Your task to perform on an android device: Go to CNN.com Image 0: 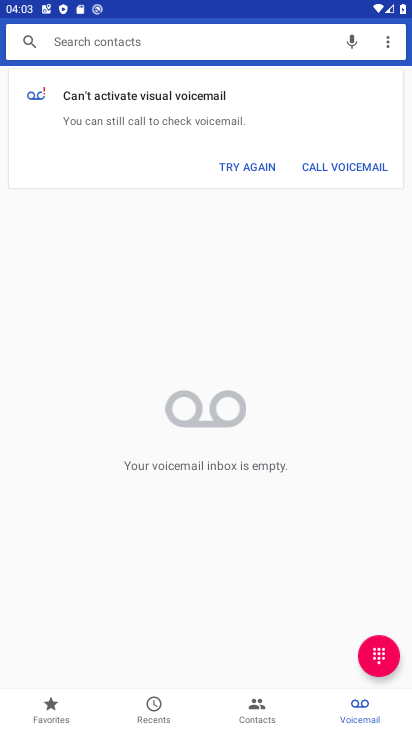
Step 0: press home button
Your task to perform on an android device: Go to CNN.com Image 1: 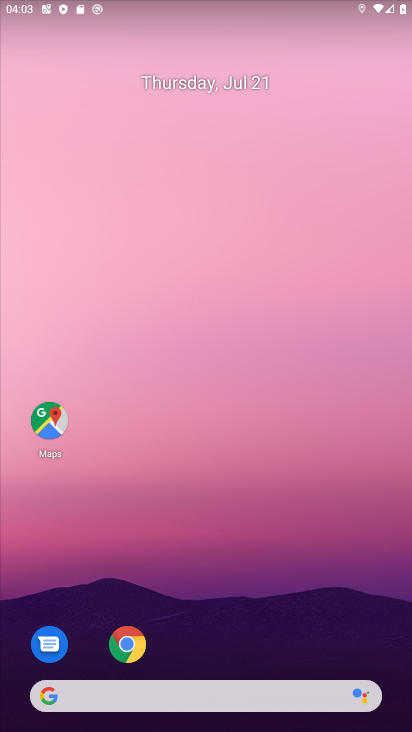
Step 1: click (134, 649)
Your task to perform on an android device: Go to CNN.com Image 2: 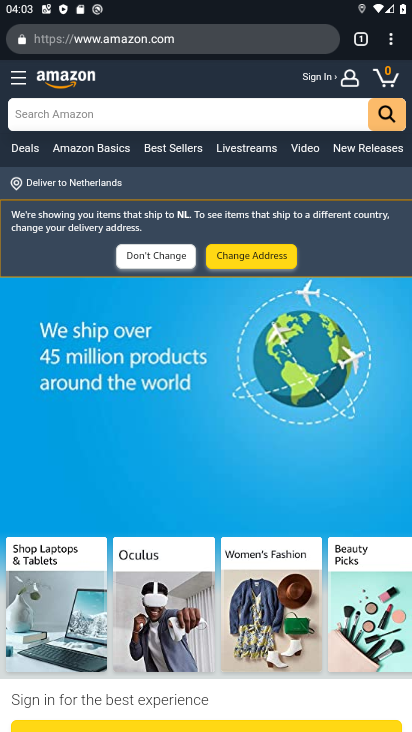
Step 2: click (191, 41)
Your task to perform on an android device: Go to CNN.com Image 3: 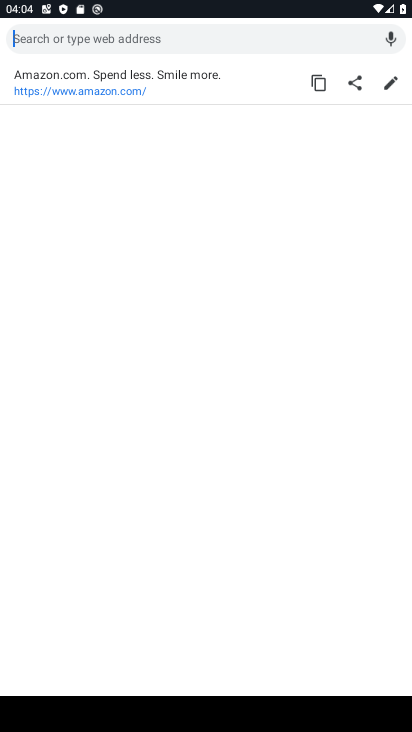
Step 3: type "cnn.com"
Your task to perform on an android device: Go to CNN.com Image 4: 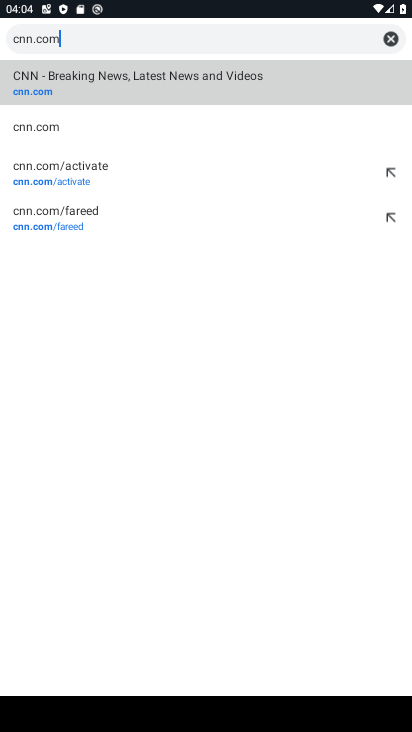
Step 4: click (35, 129)
Your task to perform on an android device: Go to CNN.com Image 5: 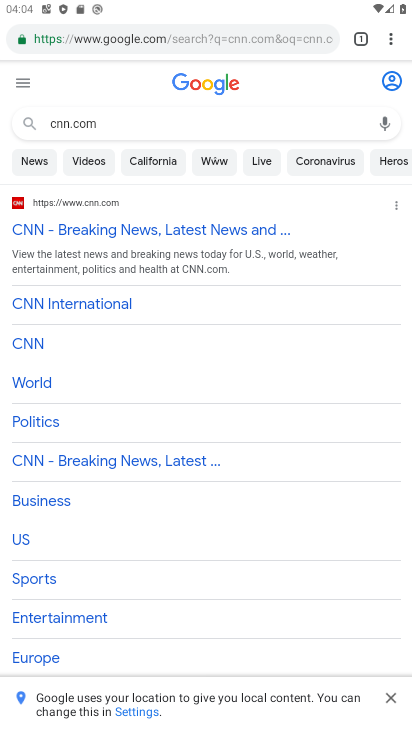
Step 5: click (68, 237)
Your task to perform on an android device: Go to CNN.com Image 6: 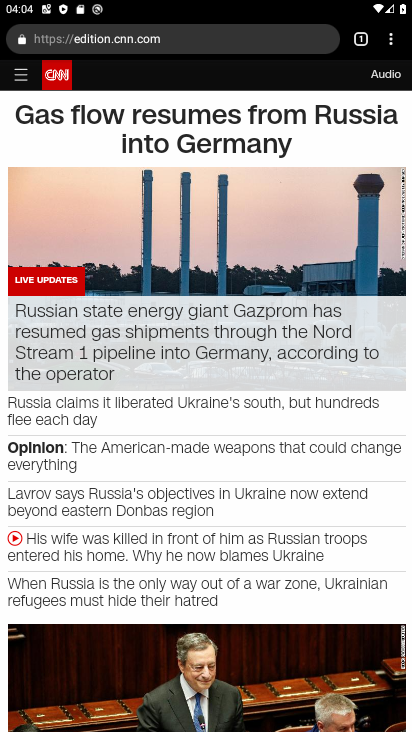
Step 6: task complete